Your task to perform on an android device: Go to accessibility settings Image 0: 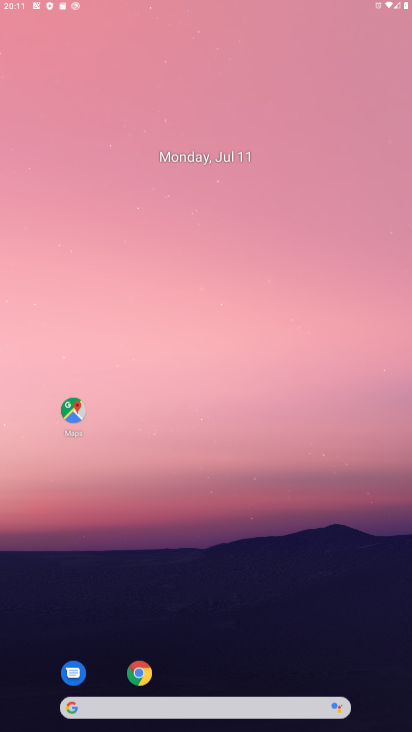
Step 0: press home button
Your task to perform on an android device: Go to accessibility settings Image 1: 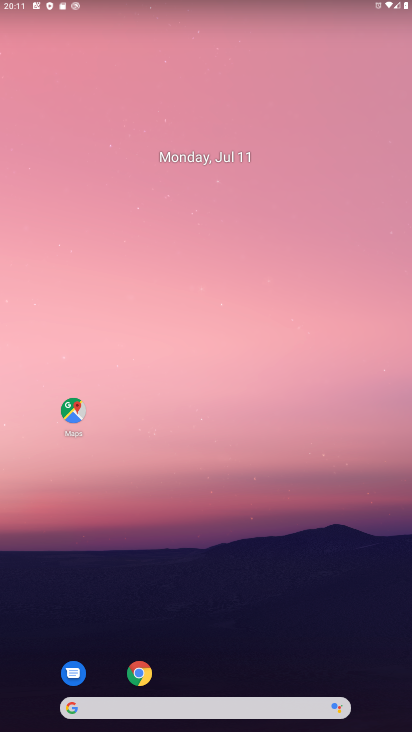
Step 1: drag from (214, 668) to (279, 70)
Your task to perform on an android device: Go to accessibility settings Image 2: 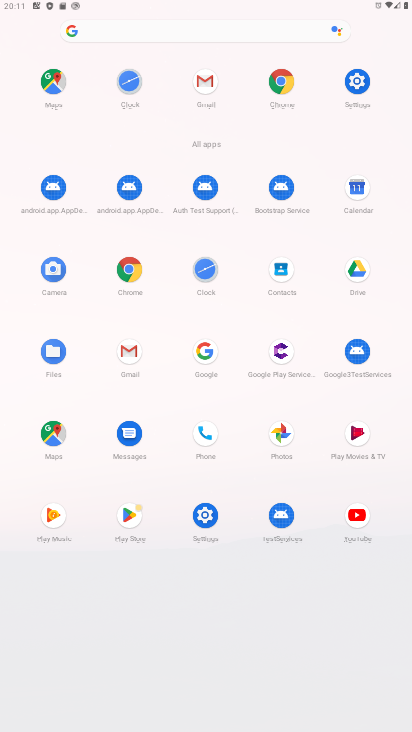
Step 2: click (355, 76)
Your task to perform on an android device: Go to accessibility settings Image 3: 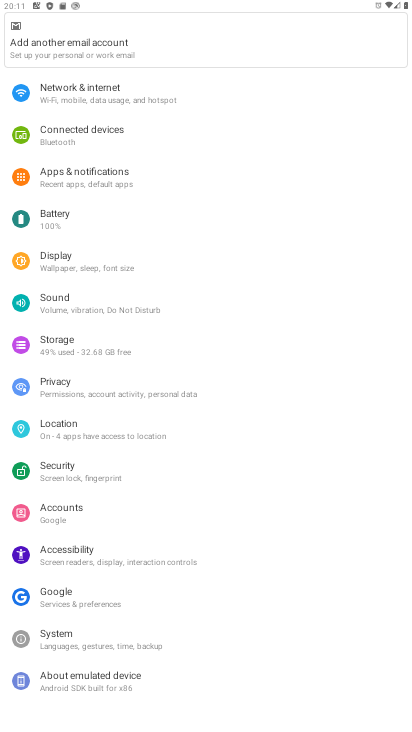
Step 3: click (112, 550)
Your task to perform on an android device: Go to accessibility settings Image 4: 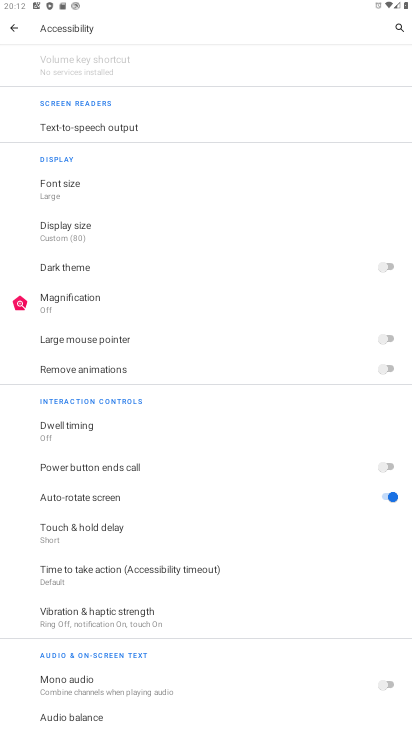
Step 4: task complete